Your task to perform on an android device: turn off picture-in-picture Image 0: 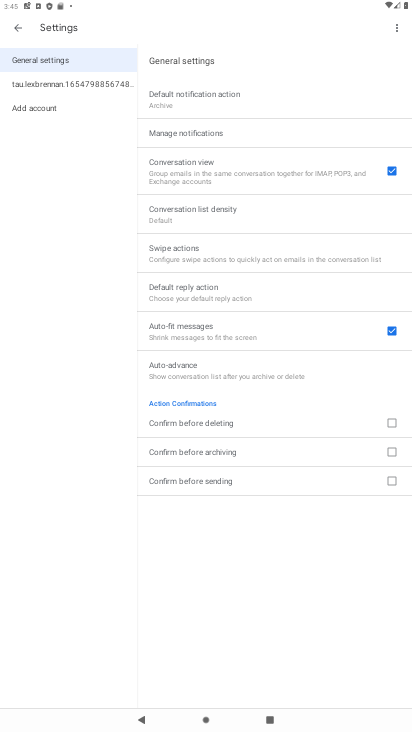
Step 0: press home button
Your task to perform on an android device: turn off picture-in-picture Image 1: 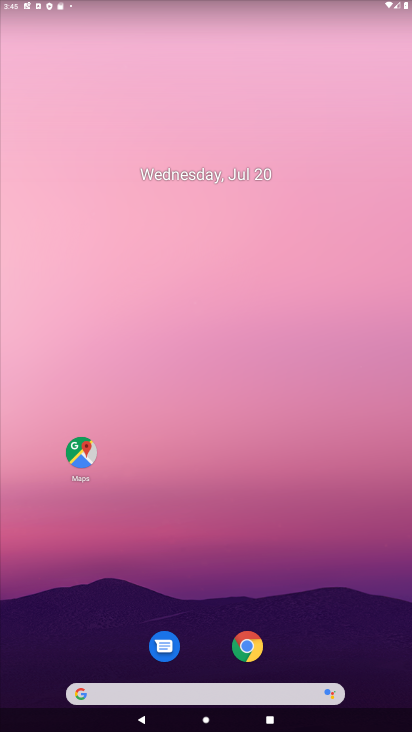
Step 1: drag from (236, 607) to (213, 339)
Your task to perform on an android device: turn off picture-in-picture Image 2: 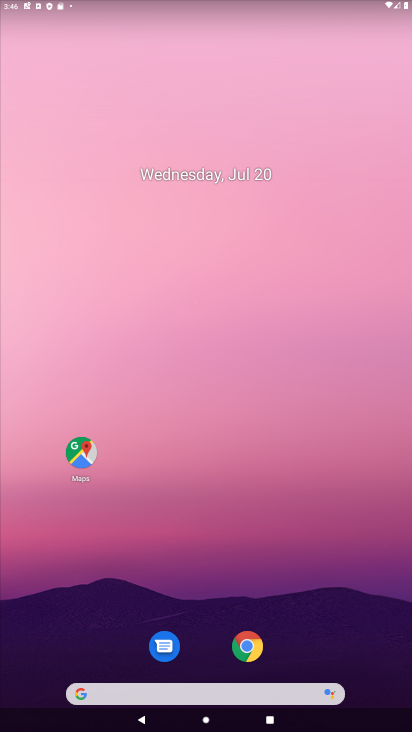
Step 2: click (245, 634)
Your task to perform on an android device: turn off picture-in-picture Image 3: 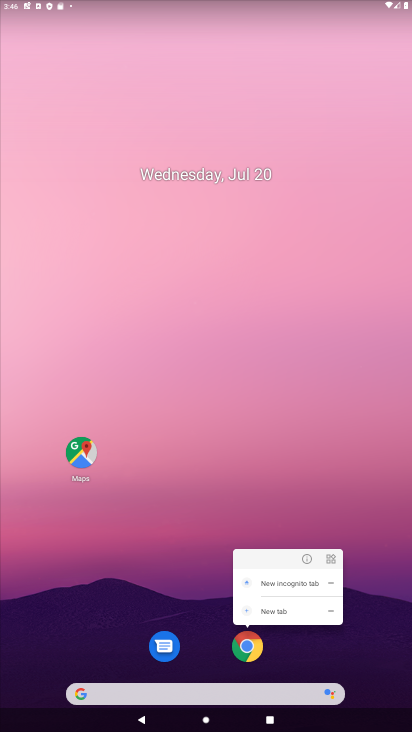
Step 3: click (299, 563)
Your task to perform on an android device: turn off picture-in-picture Image 4: 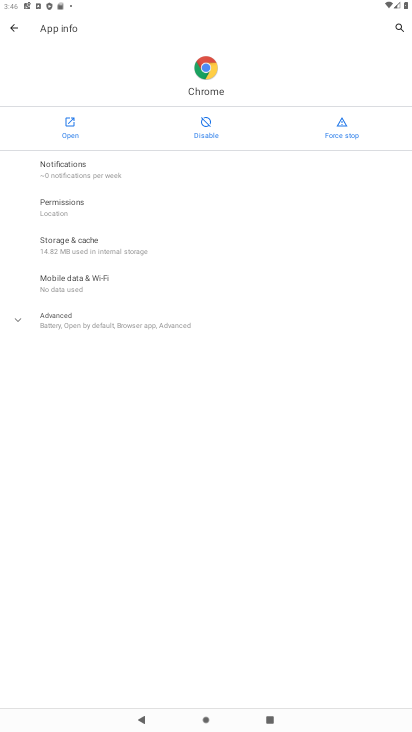
Step 4: click (149, 330)
Your task to perform on an android device: turn off picture-in-picture Image 5: 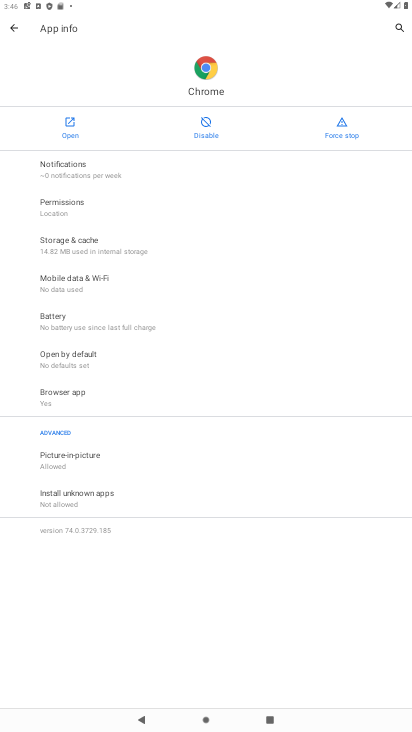
Step 5: click (149, 458)
Your task to perform on an android device: turn off picture-in-picture Image 6: 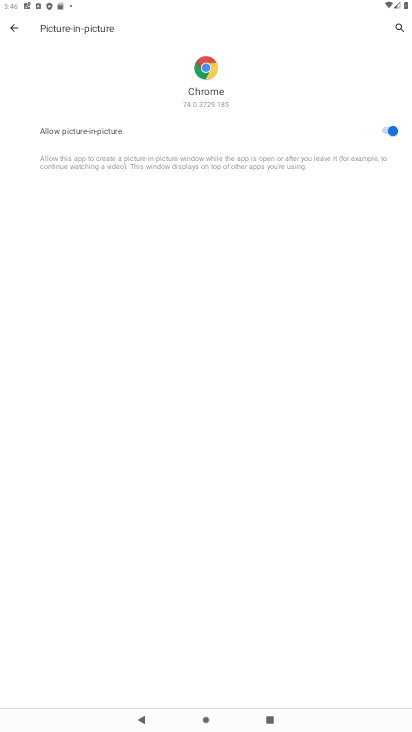
Step 6: click (390, 123)
Your task to perform on an android device: turn off picture-in-picture Image 7: 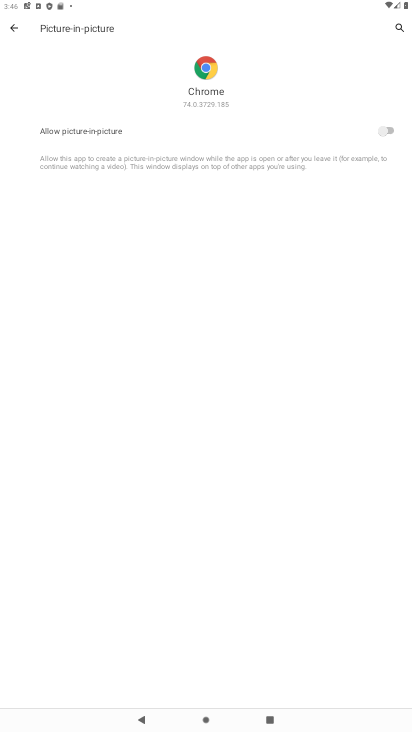
Step 7: task complete